Your task to perform on an android device: turn on the 12-hour format for clock Image 0: 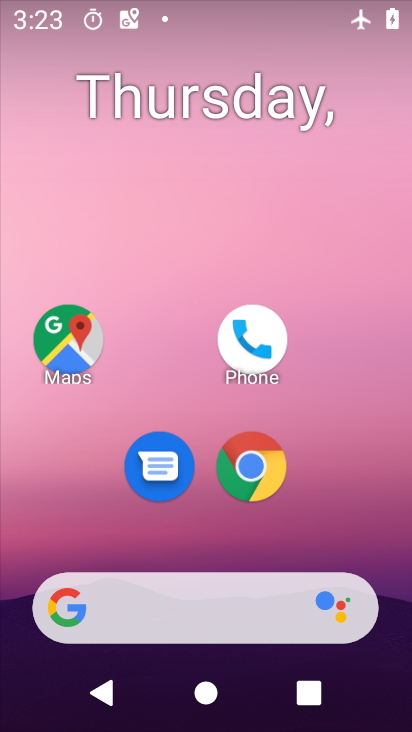
Step 0: drag from (195, 558) to (172, 148)
Your task to perform on an android device: turn on the 12-hour format for clock Image 1: 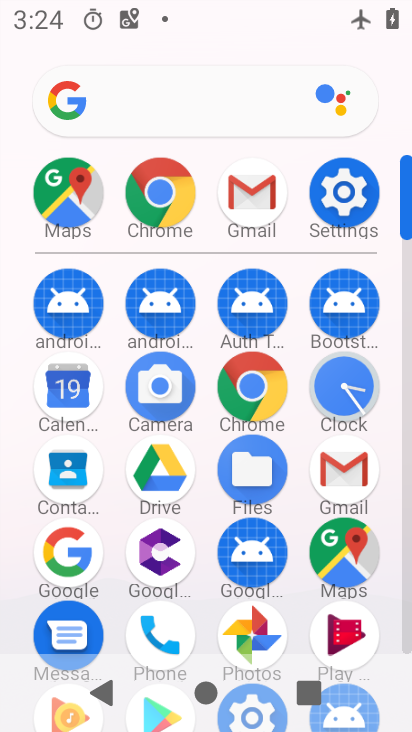
Step 1: click (338, 390)
Your task to perform on an android device: turn on the 12-hour format for clock Image 2: 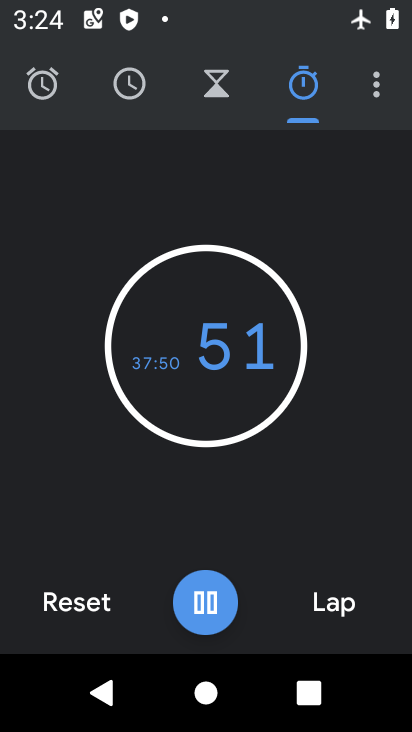
Step 2: drag from (207, 500) to (198, 220)
Your task to perform on an android device: turn on the 12-hour format for clock Image 3: 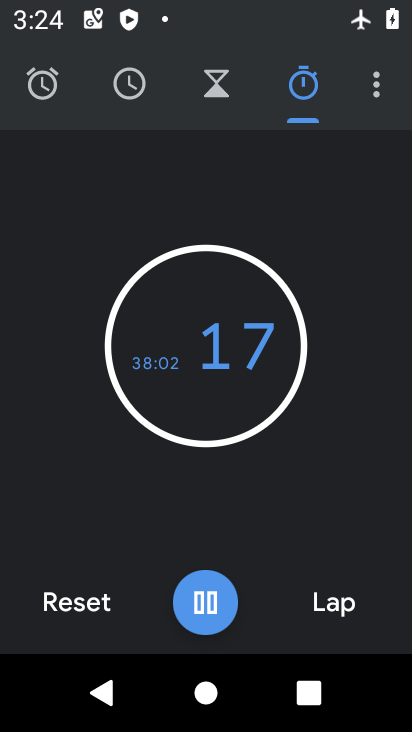
Step 3: click (379, 99)
Your task to perform on an android device: turn on the 12-hour format for clock Image 4: 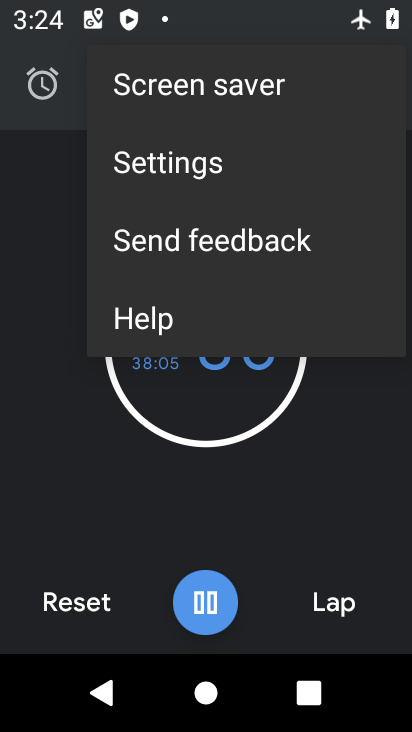
Step 4: click (203, 156)
Your task to perform on an android device: turn on the 12-hour format for clock Image 5: 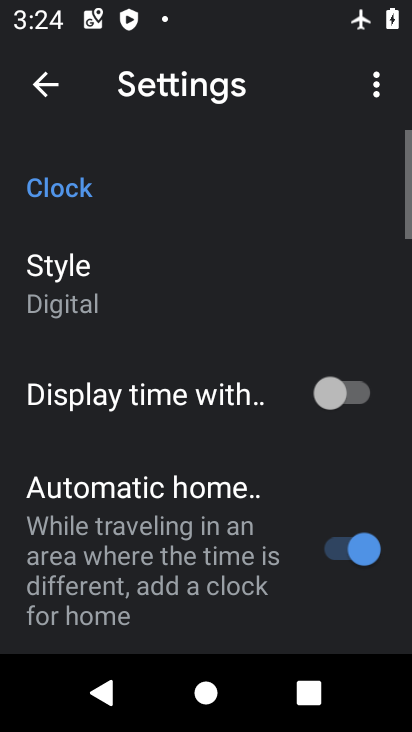
Step 5: drag from (223, 446) to (262, 266)
Your task to perform on an android device: turn on the 12-hour format for clock Image 6: 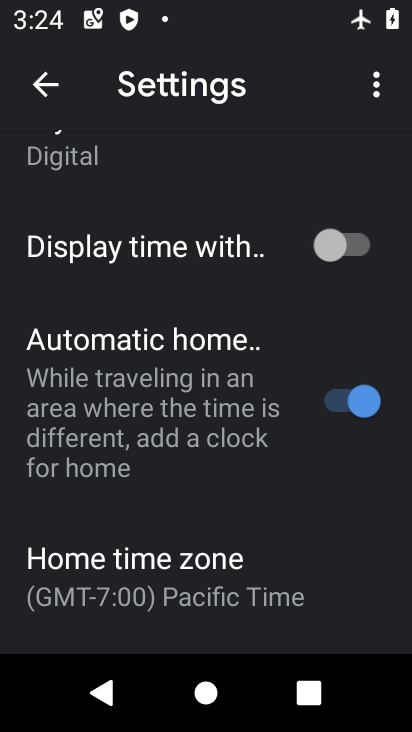
Step 6: click (84, 151)
Your task to perform on an android device: turn on the 12-hour format for clock Image 7: 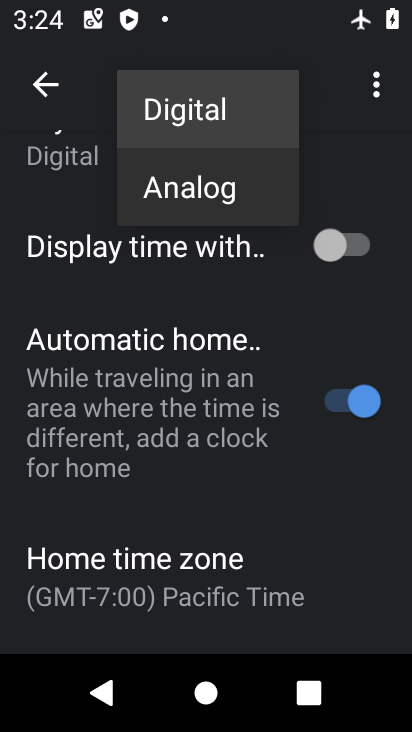
Step 7: click (221, 114)
Your task to perform on an android device: turn on the 12-hour format for clock Image 8: 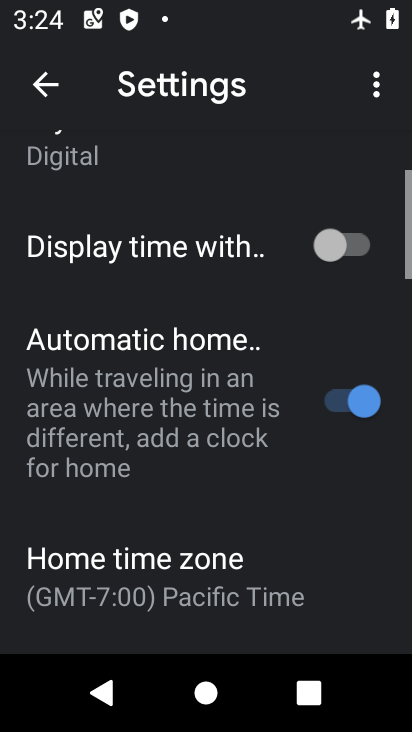
Step 8: drag from (245, 596) to (260, 182)
Your task to perform on an android device: turn on the 12-hour format for clock Image 9: 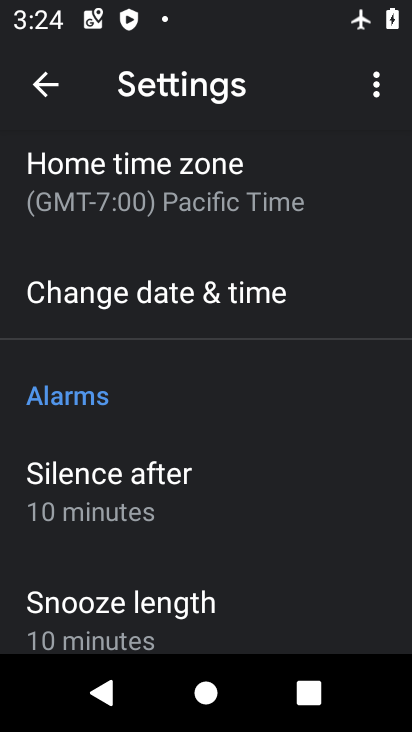
Step 9: click (153, 280)
Your task to perform on an android device: turn on the 12-hour format for clock Image 10: 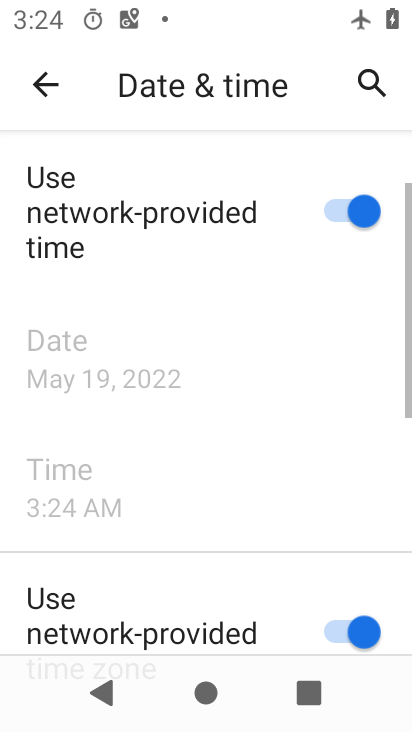
Step 10: task complete